Your task to perform on an android device: turn pop-ups off in chrome Image 0: 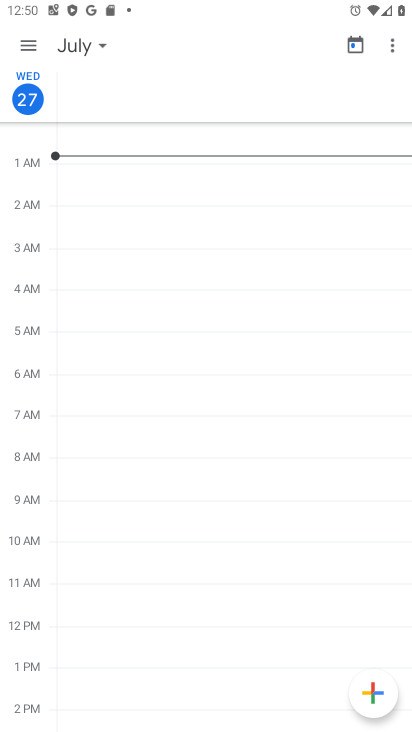
Step 0: press home button
Your task to perform on an android device: turn pop-ups off in chrome Image 1: 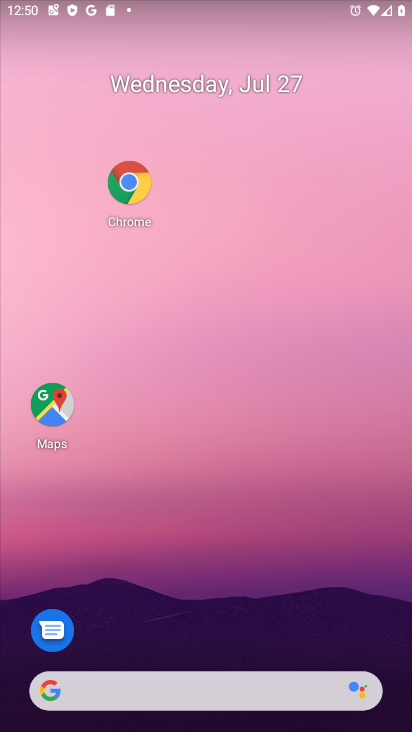
Step 1: click (125, 195)
Your task to perform on an android device: turn pop-ups off in chrome Image 2: 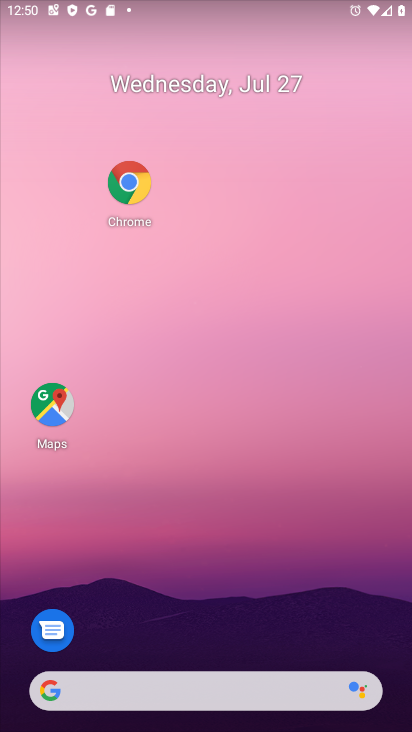
Step 2: click (125, 195)
Your task to perform on an android device: turn pop-ups off in chrome Image 3: 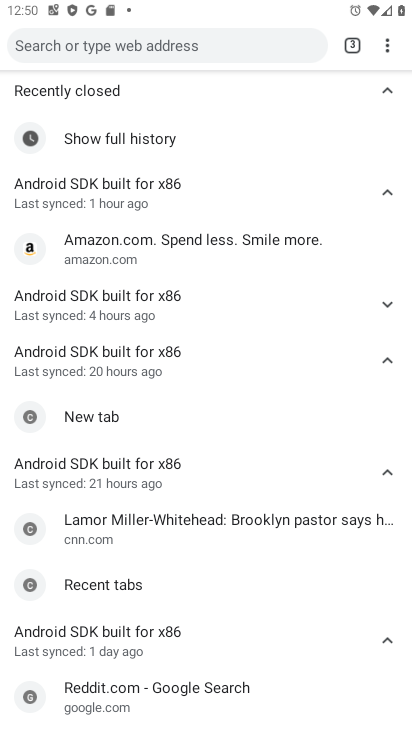
Step 3: click (392, 40)
Your task to perform on an android device: turn pop-ups off in chrome Image 4: 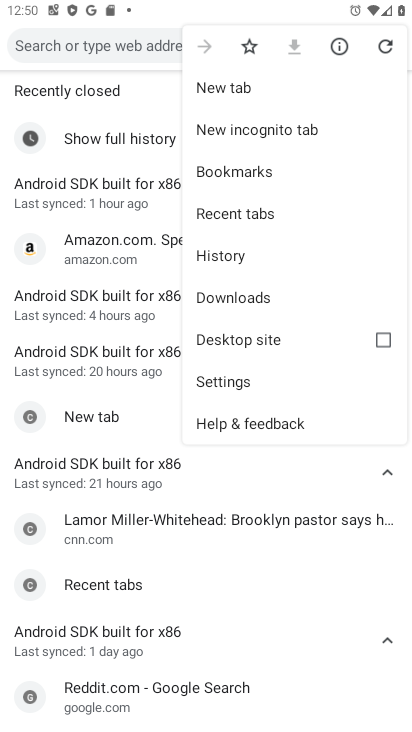
Step 4: click (259, 382)
Your task to perform on an android device: turn pop-ups off in chrome Image 5: 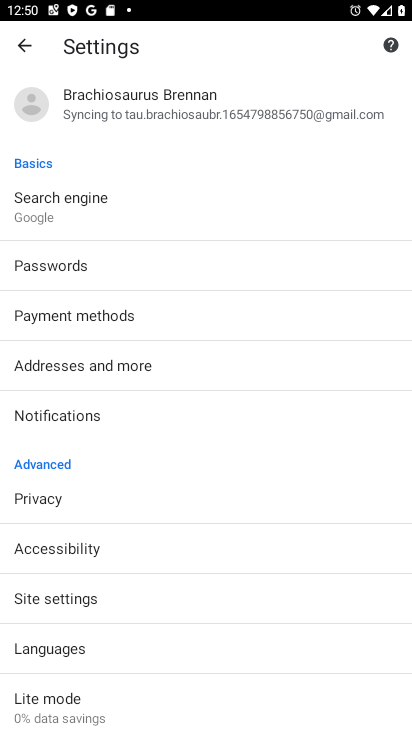
Step 5: click (99, 598)
Your task to perform on an android device: turn pop-ups off in chrome Image 6: 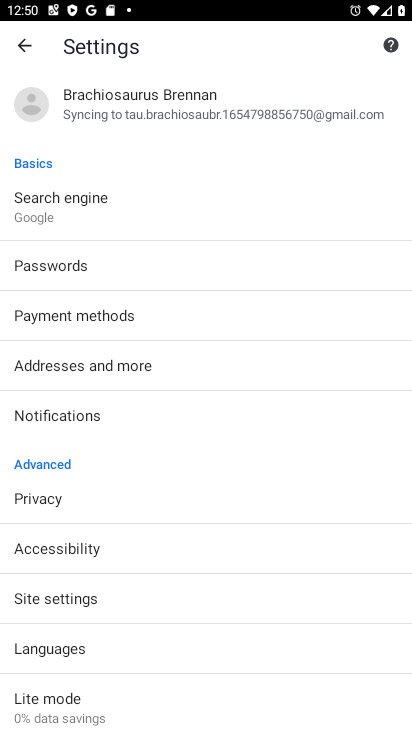
Step 6: click (99, 598)
Your task to perform on an android device: turn pop-ups off in chrome Image 7: 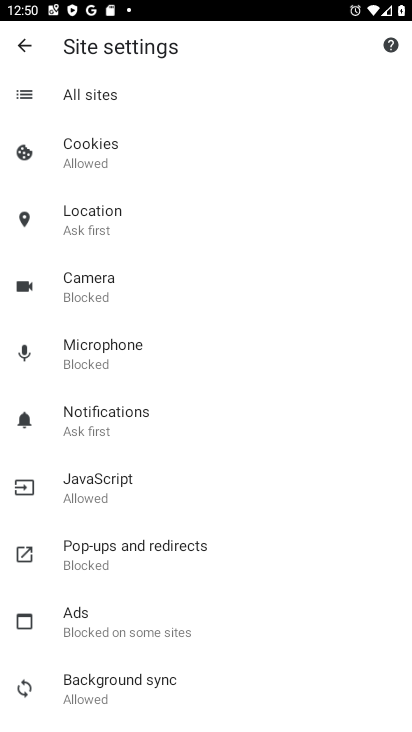
Step 7: click (165, 557)
Your task to perform on an android device: turn pop-ups off in chrome Image 8: 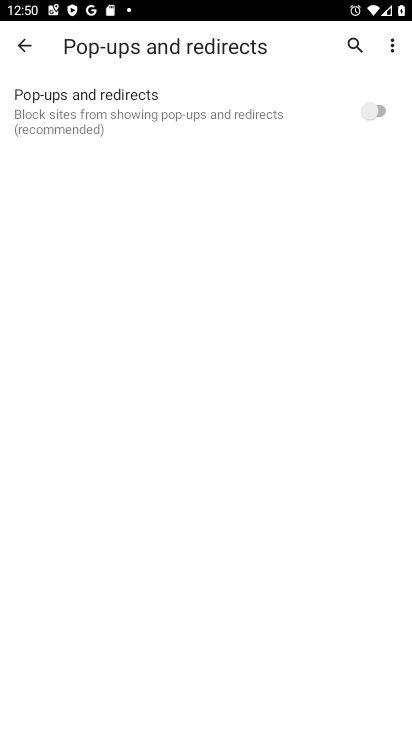
Step 8: task complete